Your task to perform on an android device: toggle priority inbox in the gmail app Image 0: 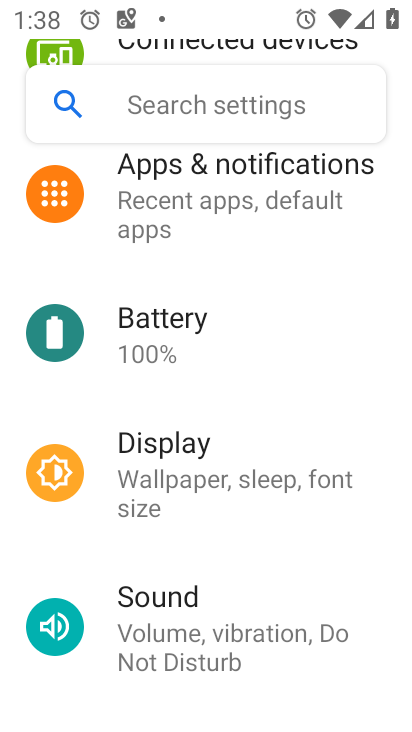
Step 0: press back button
Your task to perform on an android device: toggle priority inbox in the gmail app Image 1: 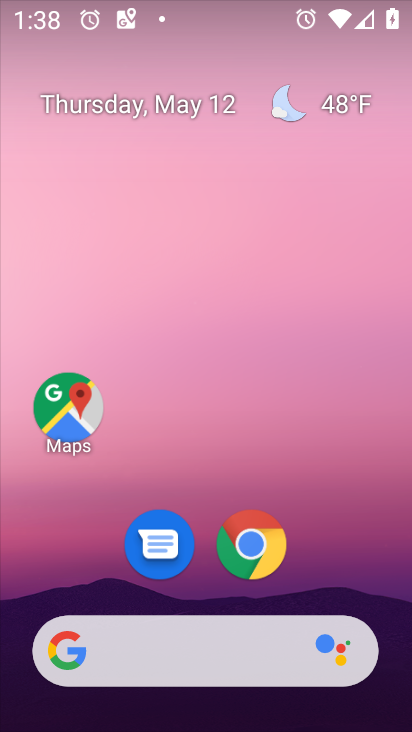
Step 1: drag from (363, 508) to (296, 50)
Your task to perform on an android device: toggle priority inbox in the gmail app Image 2: 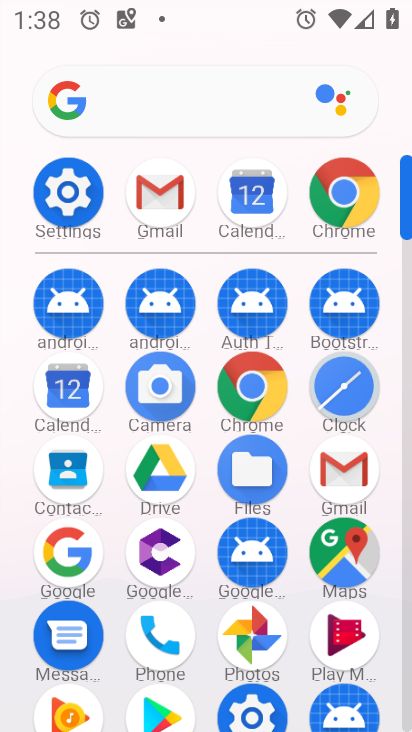
Step 2: click (342, 460)
Your task to perform on an android device: toggle priority inbox in the gmail app Image 3: 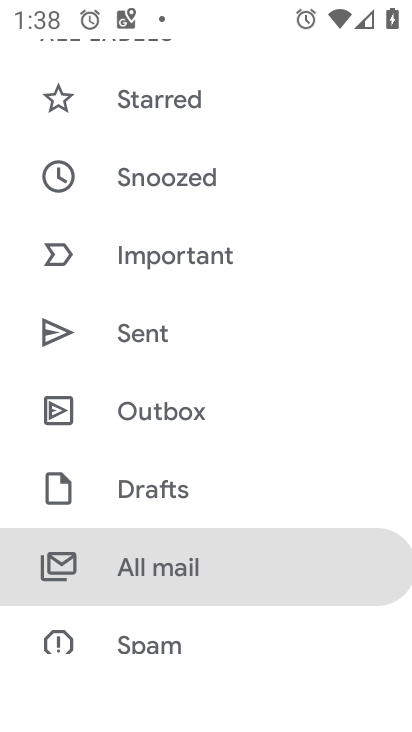
Step 3: drag from (224, 511) to (258, 83)
Your task to perform on an android device: toggle priority inbox in the gmail app Image 4: 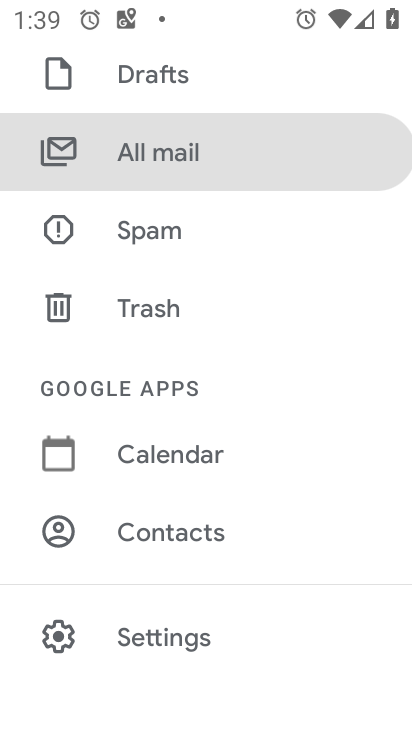
Step 4: drag from (255, 530) to (270, 133)
Your task to perform on an android device: toggle priority inbox in the gmail app Image 5: 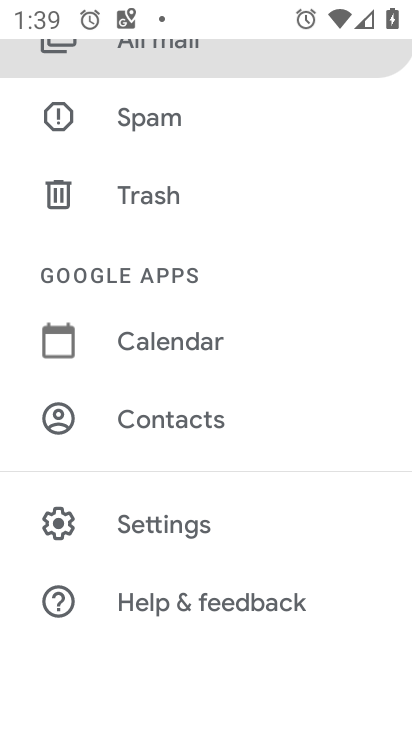
Step 5: click (171, 535)
Your task to perform on an android device: toggle priority inbox in the gmail app Image 6: 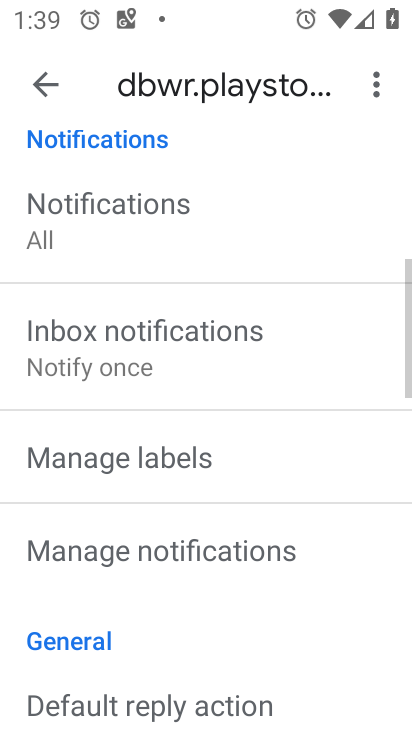
Step 6: drag from (207, 578) to (231, 132)
Your task to perform on an android device: toggle priority inbox in the gmail app Image 7: 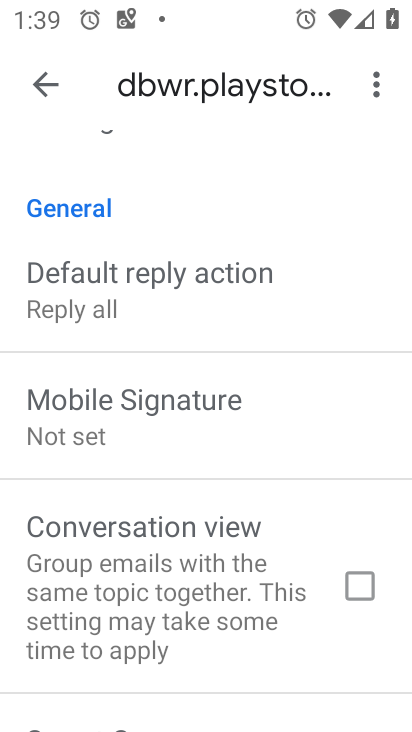
Step 7: drag from (210, 561) to (269, 127)
Your task to perform on an android device: toggle priority inbox in the gmail app Image 8: 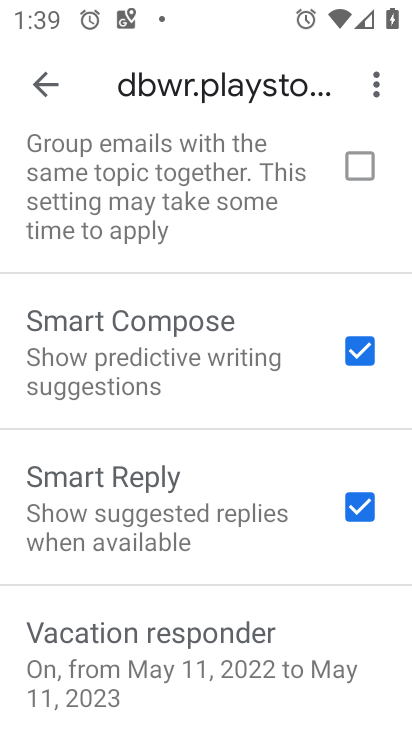
Step 8: drag from (218, 508) to (237, 226)
Your task to perform on an android device: toggle priority inbox in the gmail app Image 9: 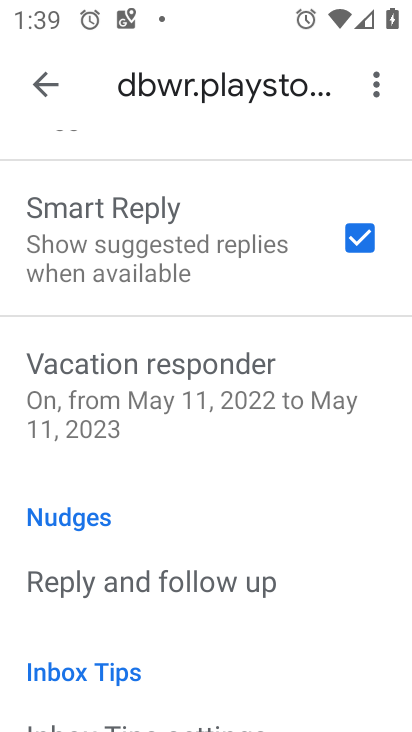
Step 9: drag from (193, 494) to (256, 722)
Your task to perform on an android device: toggle priority inbox in the gmail app Image 10: 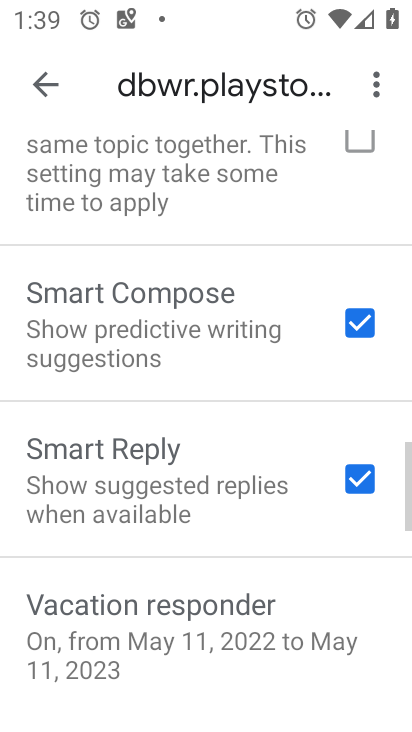
Step 10: drag from (213, 252) to (214, 640)
Your task to perform on an android device: toggle priority inbox in the gmail app Image 11: 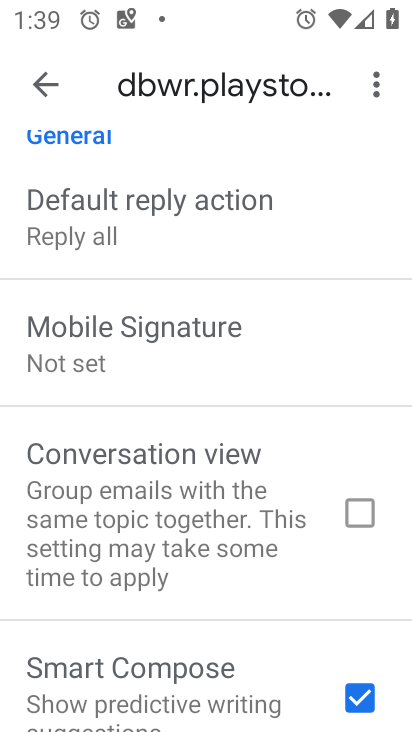
Step 11: drag from (202, 228) to (204, 658)
Your task to perform on an android device: toggle priority inbox in the gmail app Image 12: 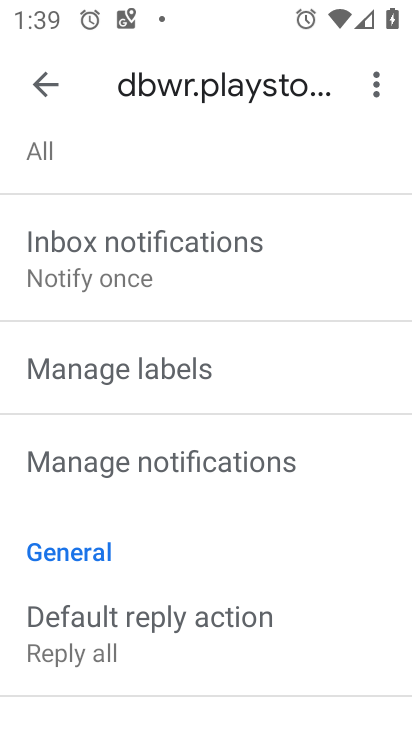
Step 12: drag from (223, 213) to (222, 585)
Your task to perform on an android device: toggle priority inbox in the gmail app Image 13: 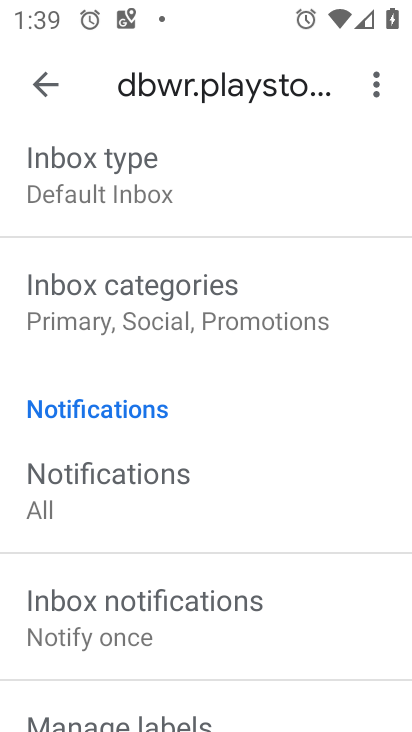
Step 13: click (205, 297)
Your task to perform on an android device: toggle priority inbox in the gmail app Image 14: 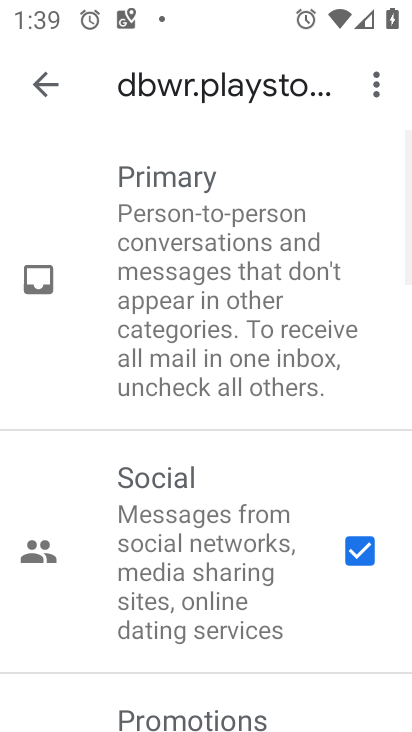
Step 14: click (53, 82)
Your task to perform on an android device: toggle priority inbox in the gmail app Image 15: 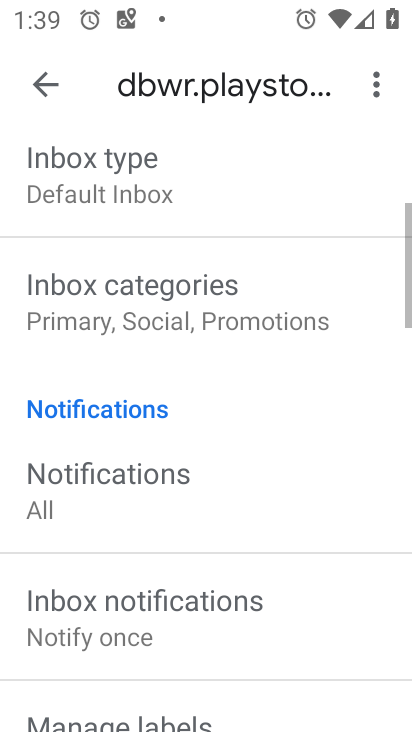
Step 15: click (150, 202)
Your task to perform on an android device: toggle priority inbox in the gmail app Image 16: 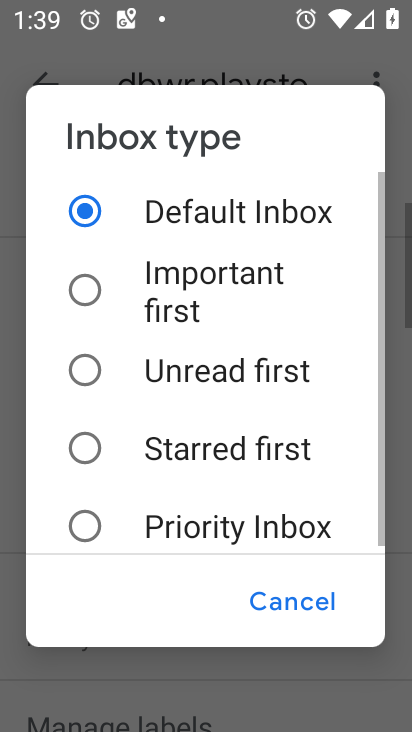
Step 16: click (173, 534)
Your task to perform on an android device: toggle priority inbox in the gmail app Image 17: 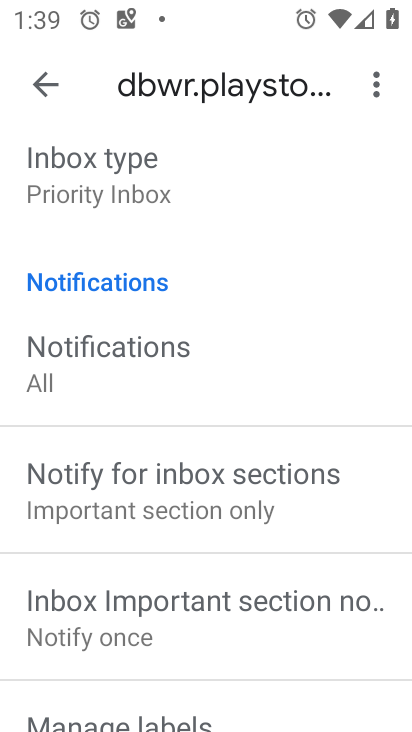
Step 17: task complete